Your task to perform on an android device: What's the weather today? Image 0: 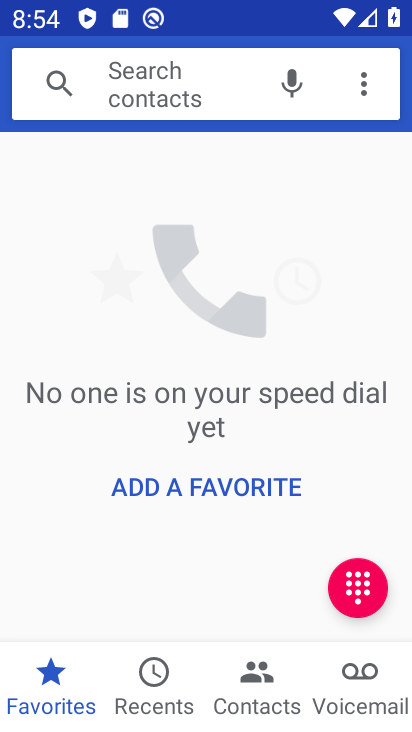
Step 0: drag from (336, 581) to (364, 295)
Your task to perform on an android device: What's the weather today? Image 1: 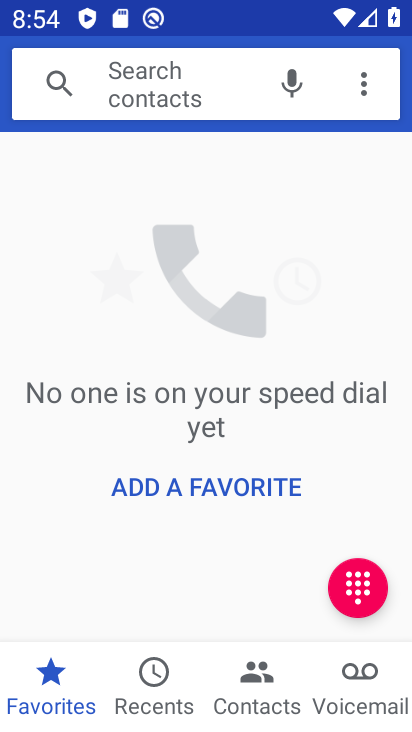
Step 1: press home button
Your task to perform on an android device: What's the weather today? Image 2: 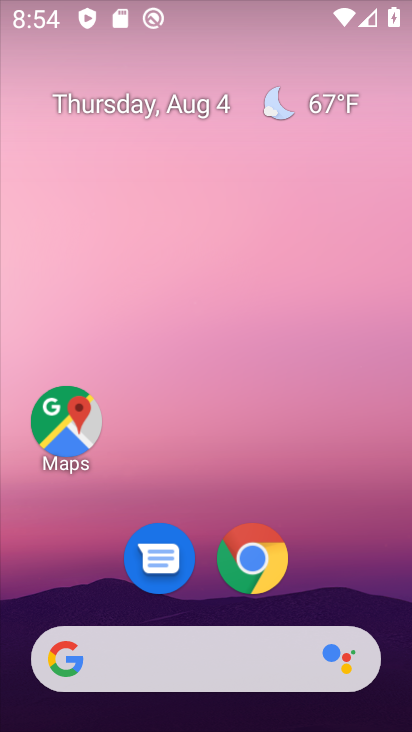
Step 2: drag from (330, 587) to (306, 113)
Your task to perform on an android device: What's the weather today? Image 3: 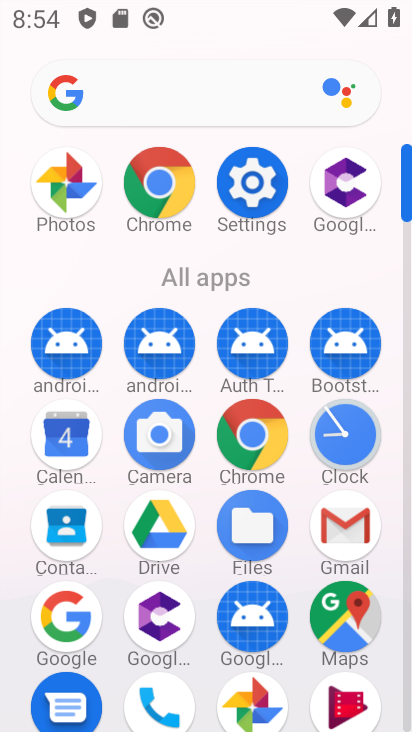
Step 3: press home button
Your task to perform on an android device: What's the weather today? Image 4: 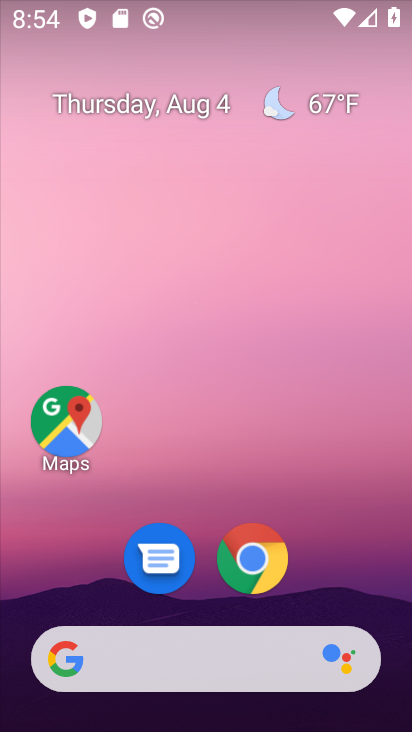
Step 4: click (325, 98)
Your task to perform on an android device: What's the weather today? Image 5: 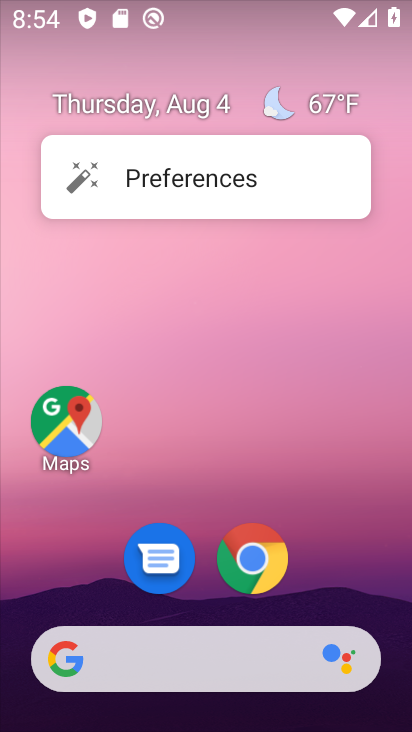
Step 5: click (331, 102)
Your task to perform on an android device: What's the weather today? Image 6: 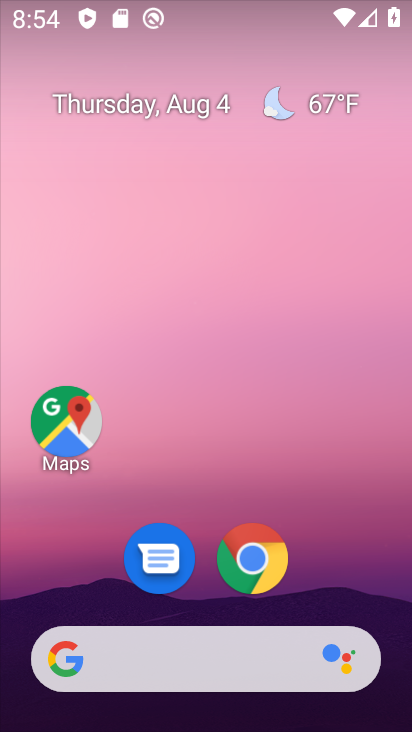
Step 6: click (336, 103)
Your task to perform on an android device: What's the weather today? Image 7: 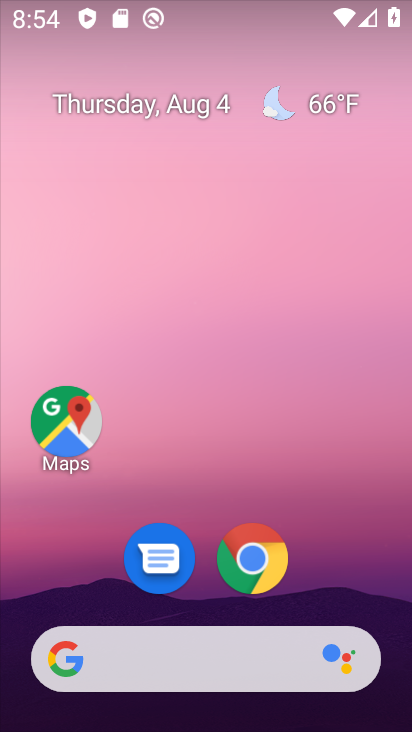
Step 7: click (329, 98)
Your task to perform on an android device: What's the weather today? Image 8: 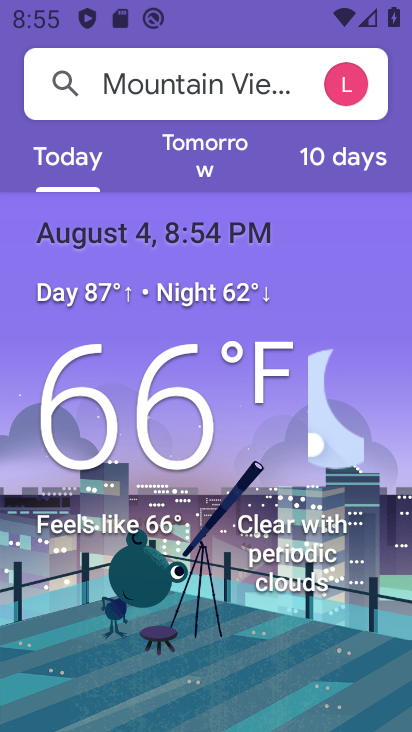
Step 8: task complete